Your task to perform on an android device: Open the calendar and show me this week's events Image 0: 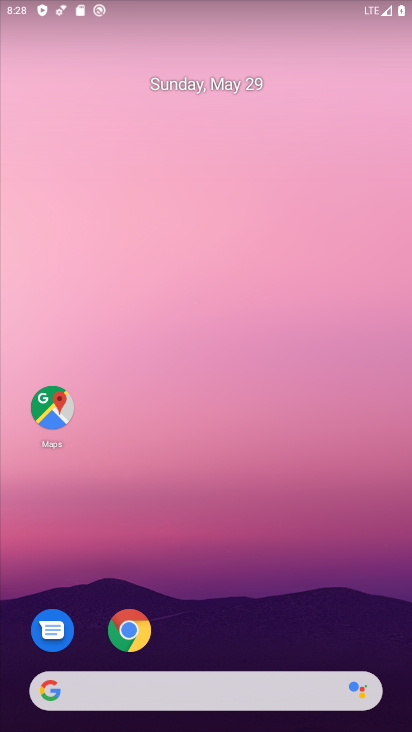
Step 0: drag from (172, 665) to (292, 163)
Your task to perform on an android device: Open the calendar and show me this week's events Image 1: 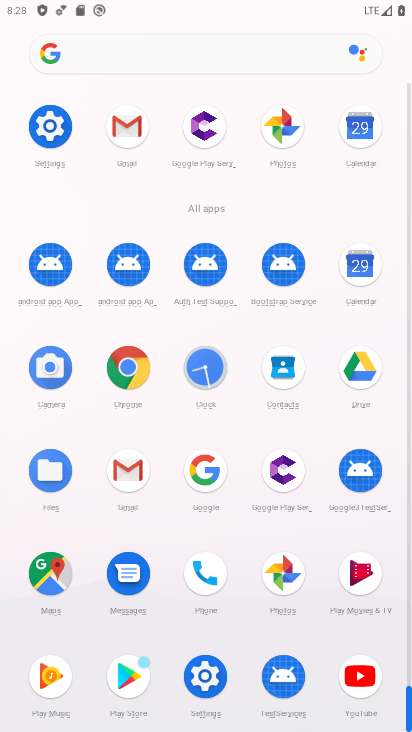
Step 1: click (360, 285)
Your task to perform on an android device: Open the calendar and show me this week's events Image 2: 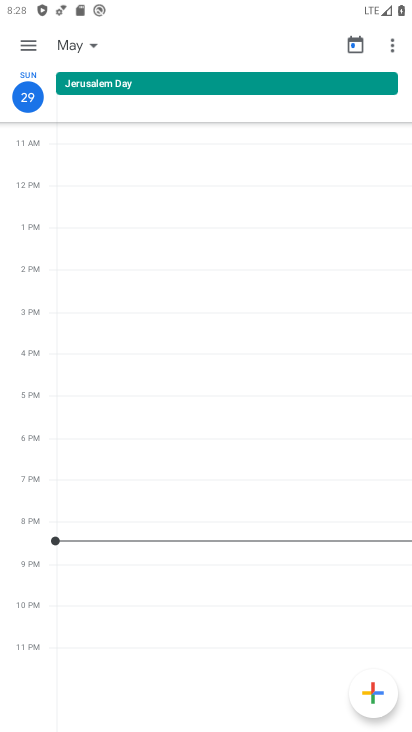
Step 2: click (32, 53)
Your task to perform on an android device: Open the calendar and show me this week's events Image 3: 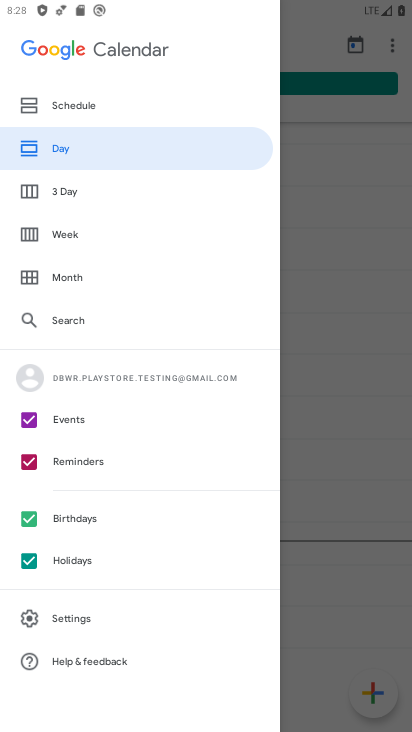
Step 3: click (107, 233)
Your task to perform on an android device: Open the calendar and show me this week's events Image 4: 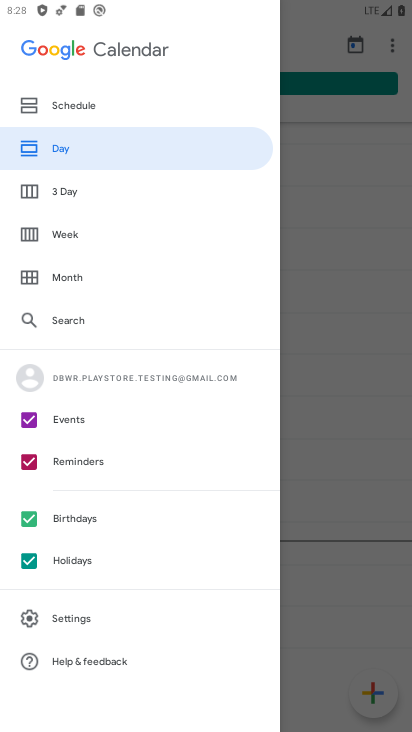
Step 4: click (93, 233)
Your task to perform on an android device: Open the calendar and show me this week's events Image 5: 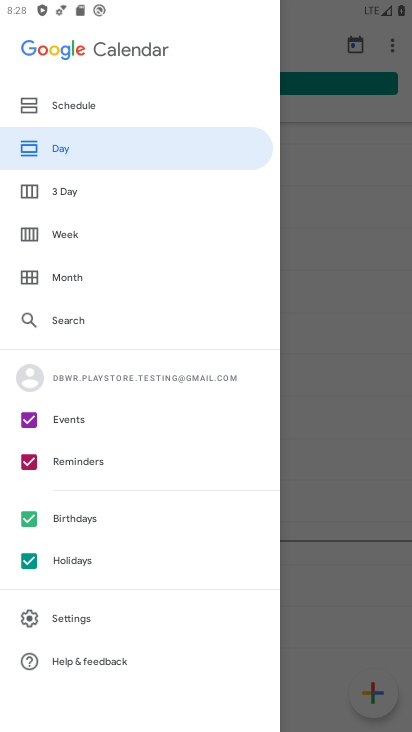
Step 5: click (57, 238)
Your task to perform on an android device: Open the calendar and show me this week's events Image 6: 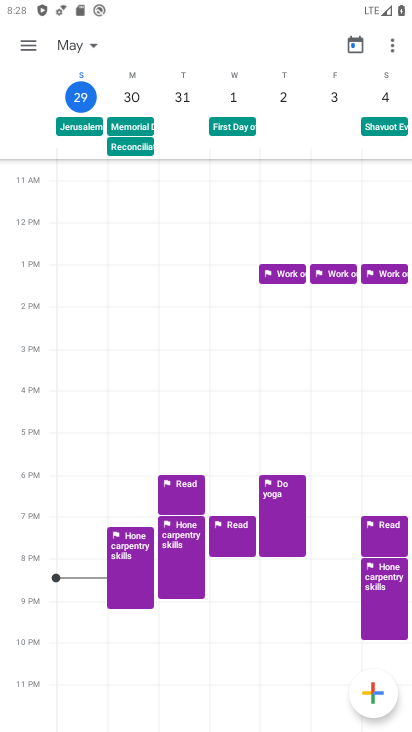
Step 6: task complete